Your task to perform on an android device: Go to notification settings Image 0: 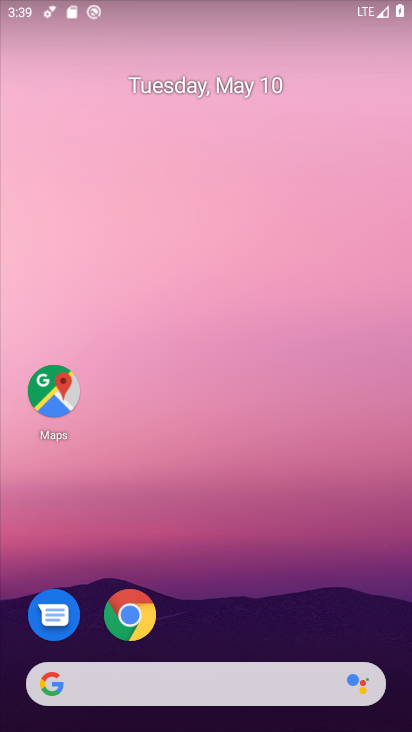
Step 0: drag from (235, 554) to (212, 74)
Your task to perform on an android device: Go to notification settings Image 1: 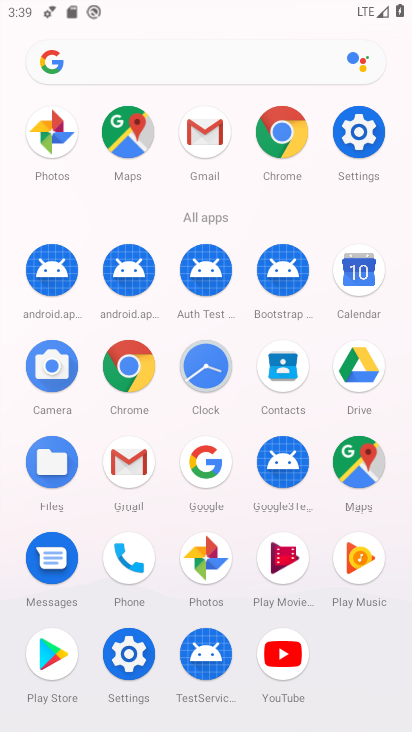
Step 1: click (360, 128)
Your task to perform on an android device: Go to notification settings Image 2: 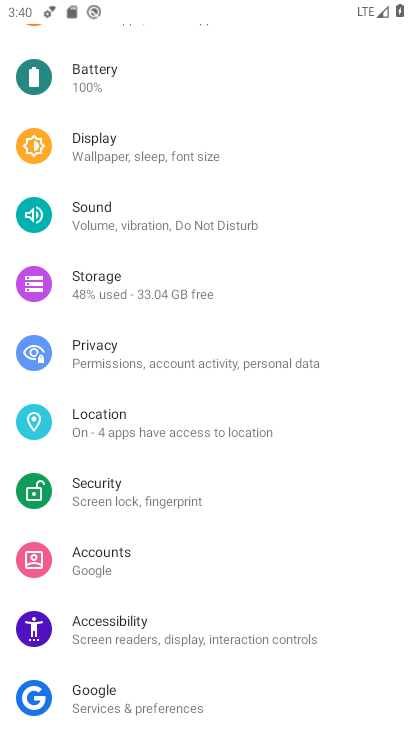
Step 2: drag from (230, 182) to (273, 576)
Your task to perform on an android device: Go to notification settings Image 3: 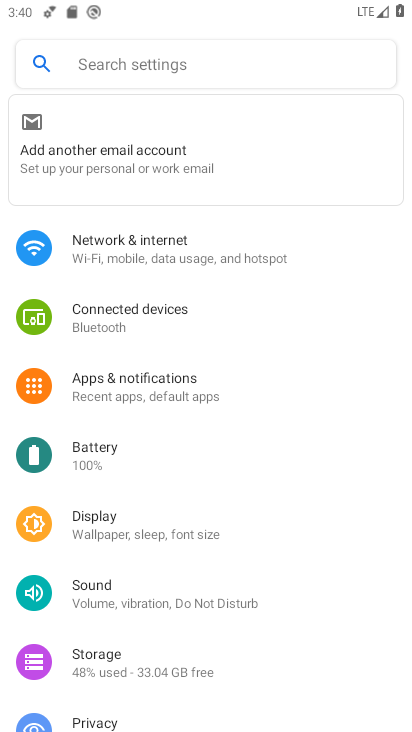
Step 3: click (194, 380)
Your task to perform on an android device: Go to notification settings Image 4: 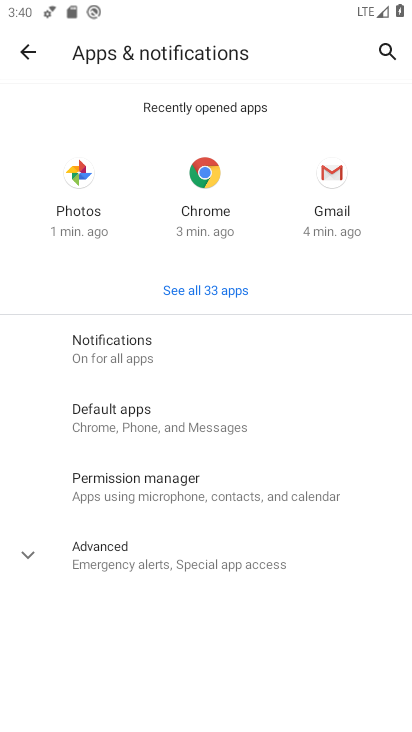
Step 4: task complete